Your task to perform on an android device: Open settings on Google Maps Image 0: 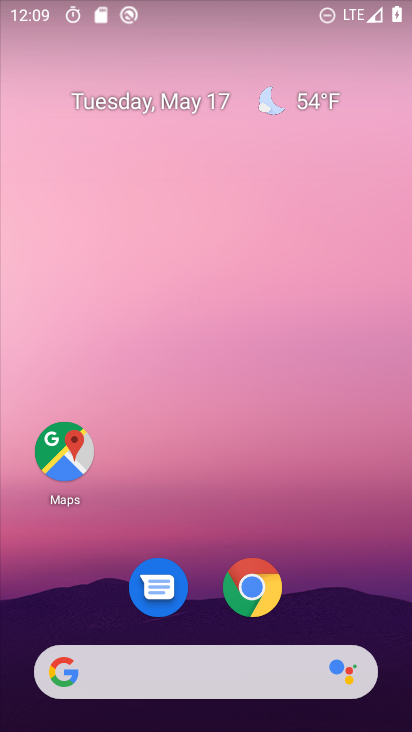
Step 0: drag from (203, 620) to (257, 29)
Your task to perform on an android device: Open settings on Google Maps Image 1: 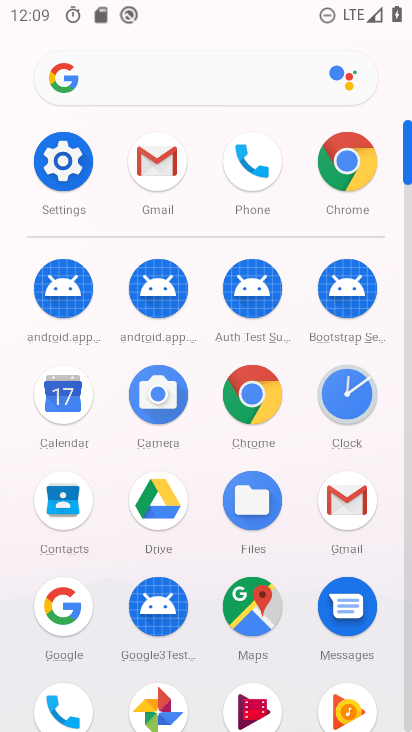
Step 1: click (241, 615)
Your task to perform on an android device: Open settings on Google Maps Image 2: 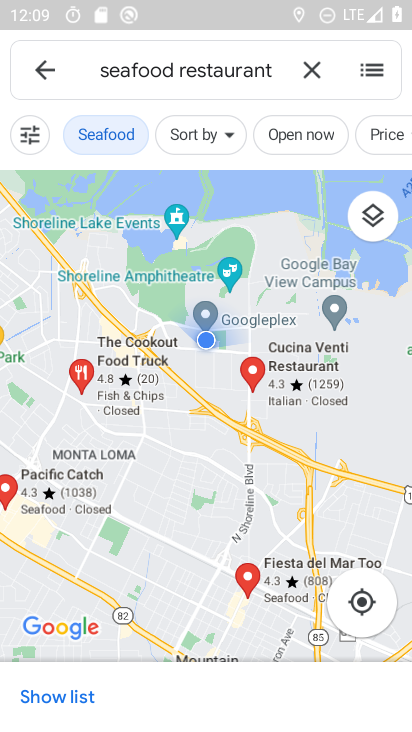
Step 2: click (49, 57)
Your task to perform on an android device: Open settings on Google Maps Image 3: 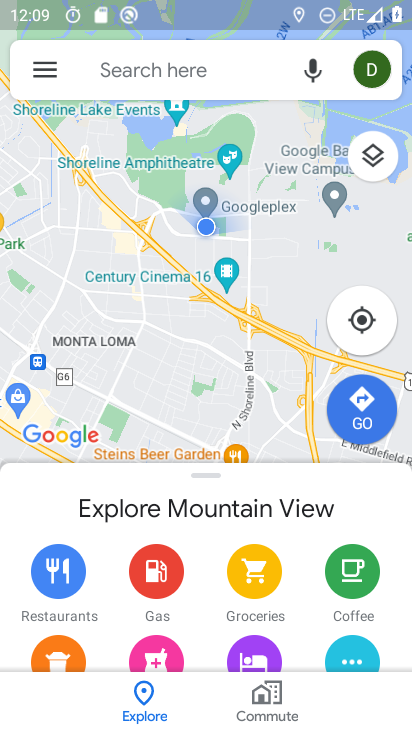
Step 3: click (49, 58)
Your task to perform on an android device: Open settings on Google Maps Image 4: 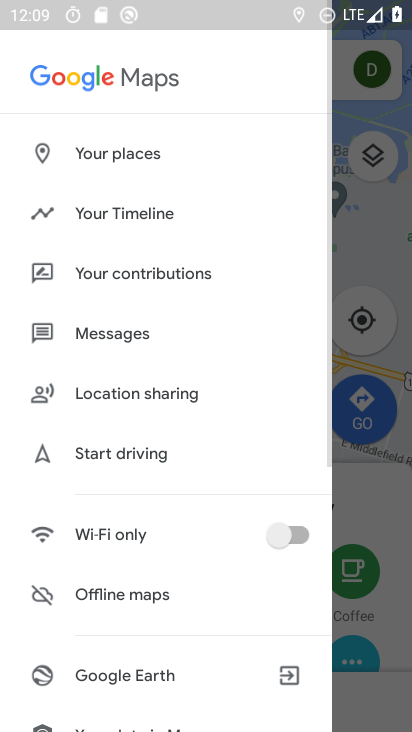
Step 4: drag from (110, 686) to (224, 63)
Your task to perform on an android device: Open settings on Google Maps Image 5: 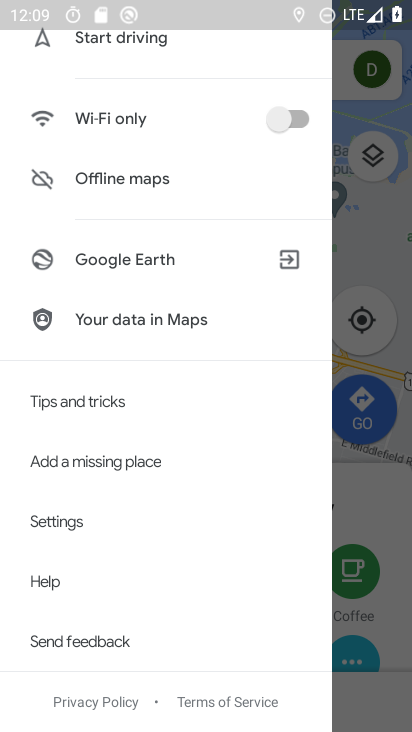
Step 5: click (74, 518)
Your task to perform on an android device: Open settings on Google Maps Image 6: 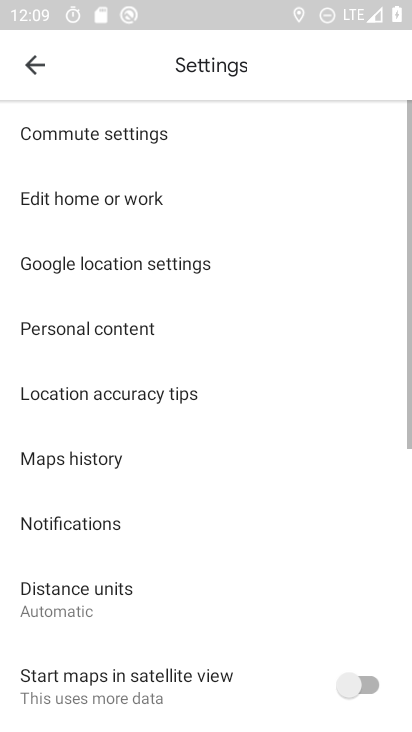
Step 6: drag from (185, 662) to (238, 150)
Your task to perform on an android device: Open settings on Google Maps Image 7: 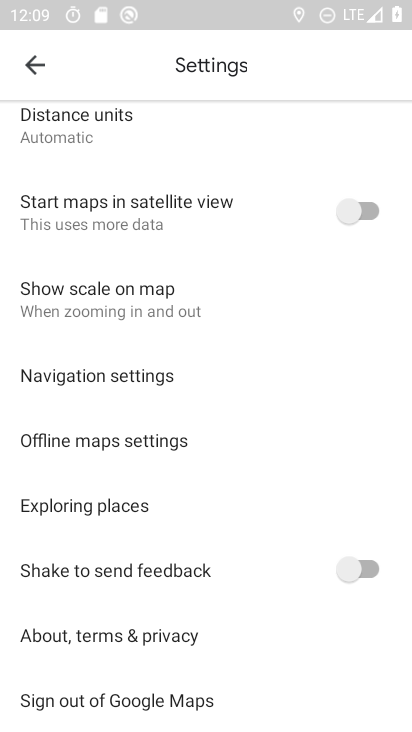
Step 7: click (43, 57)
Your task to perform on an android device: Open settings on Google Maps Image 8: 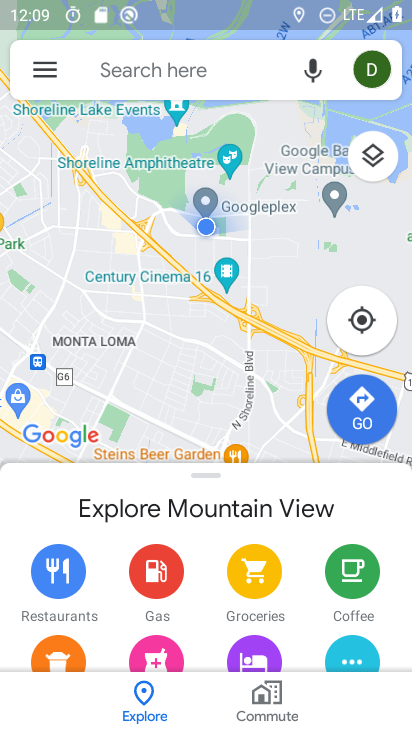
Step 8: click (29, 91)
Your task to perform on an android device: Open settings on Google Maps Image 9: 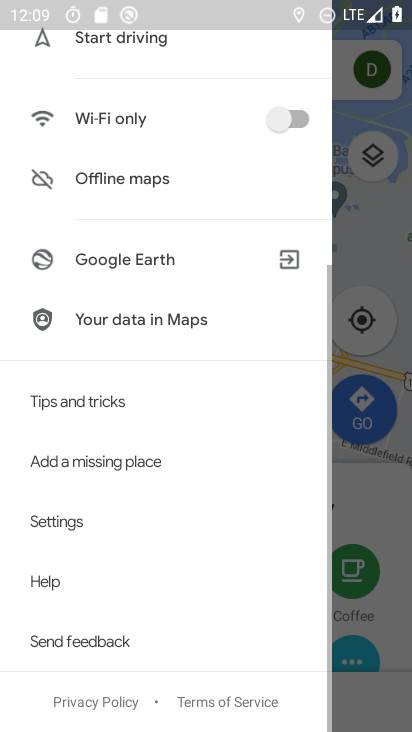
Step 9: click (119, 524)
Your task to perform on an android device: Open settings on Google Maps Image 10: 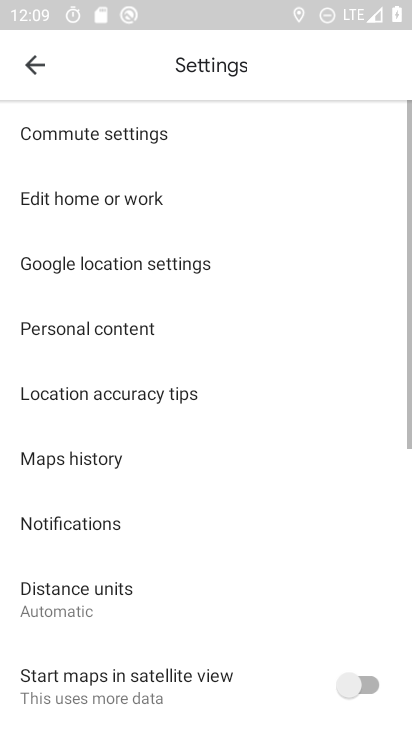
Step 10: task complete